Your task to perform on an android device: Do I have any events this weekend? Image 0: 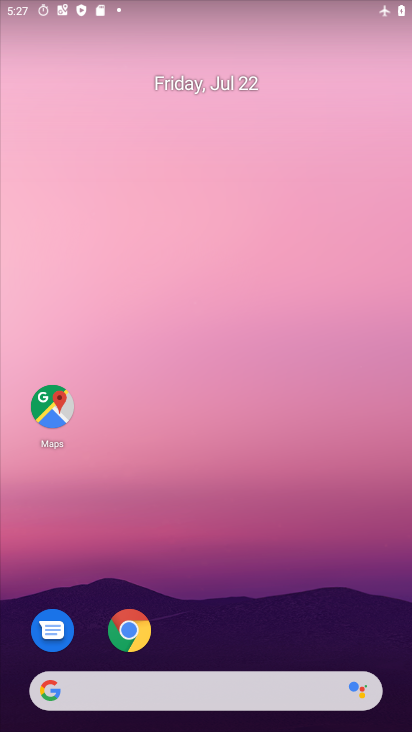
Step 0: drag from (271, 674) to (275, 215)
Your task to perform on an android device: Do I have any events this weekend? Image 1: 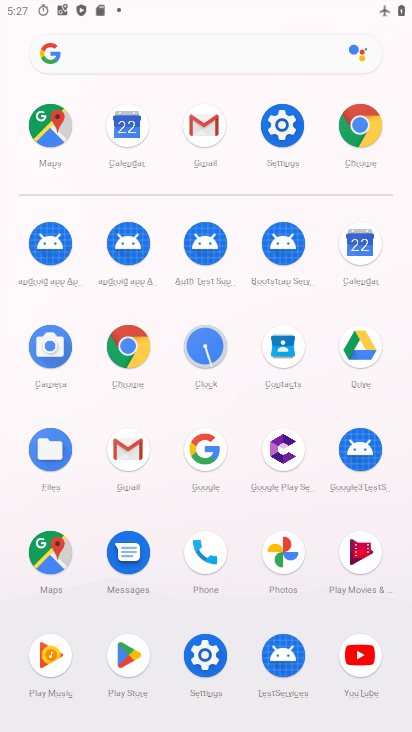
Step 1: click (366, 249)
Your task to perform on an android device: Do I have any events this weekend? Image 2: 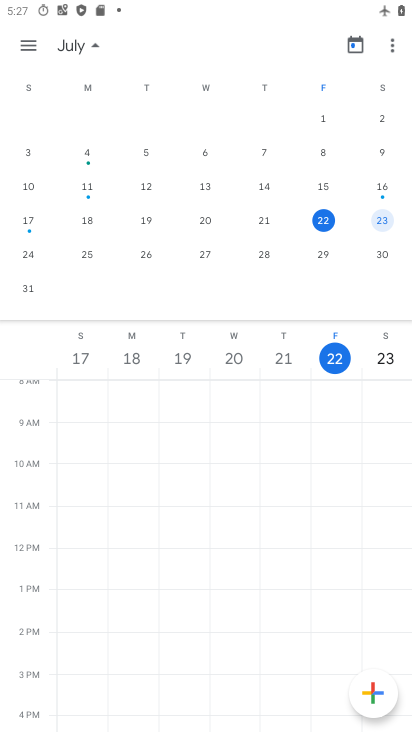
Step 2: click (379, 219)
Your task to perform on an android device: Do I have any events this weekend? Image 3: 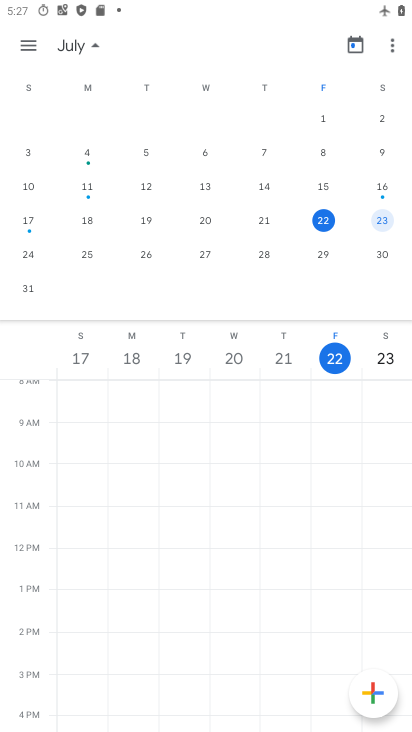
Step 3: task complete